Your task to perform on an android device: See recent photos Image 0: 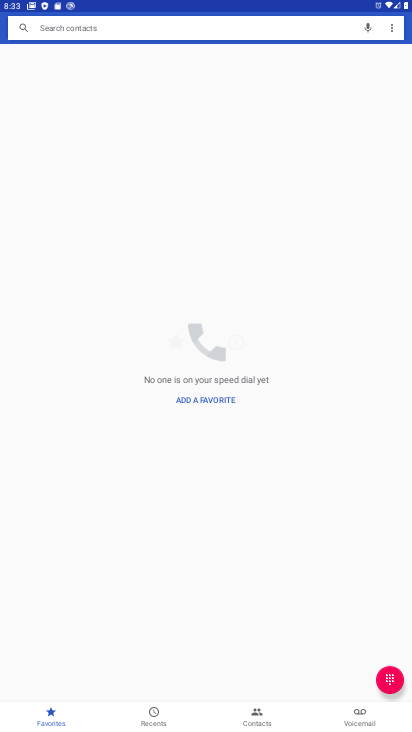
Step 0: drag from (222, 680) to (175, 163)
Your task to perform on an android device: See recent photos Image 1: 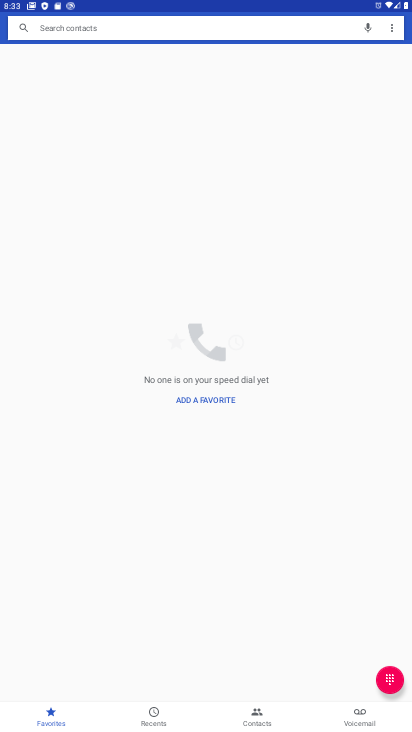
Step 1: press home button
Your task to perform on an android device: See recent photos Image 2: 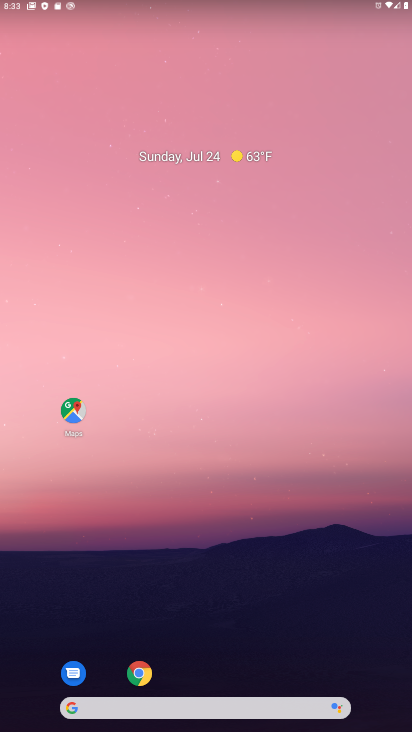
Step 2: drag from (200, 685) to (141, 183)
Your task to perform on an android device: See recent photos Image 3: 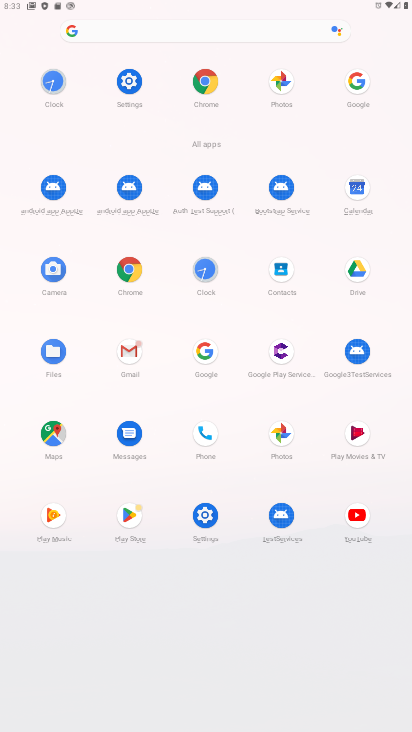
Step 3: click (262, 434)
Your task to perform on an android device: See recent photos Image 4: 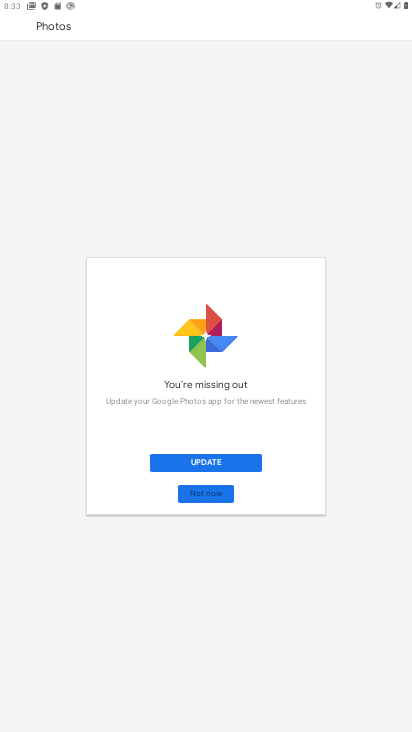
Step 4: click (219, 503)
Your task to perform on an android device: See recent photos Image 5: 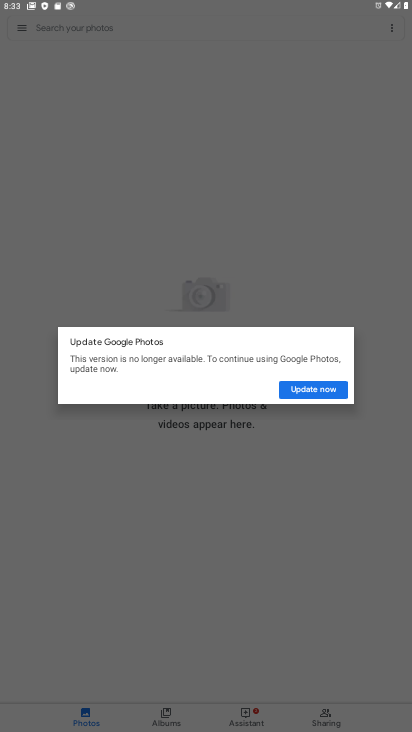
Step 5: task complete